Your task to perform on an android device: Search for pizza restaurants on Maps Image 0: 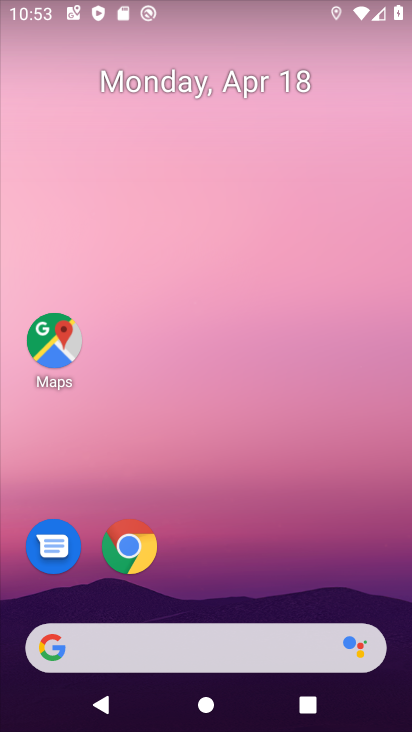
Step 0: click (53, 351)
Your task to perform on an android device: Search for pizza restaurants on Maps Image 1: 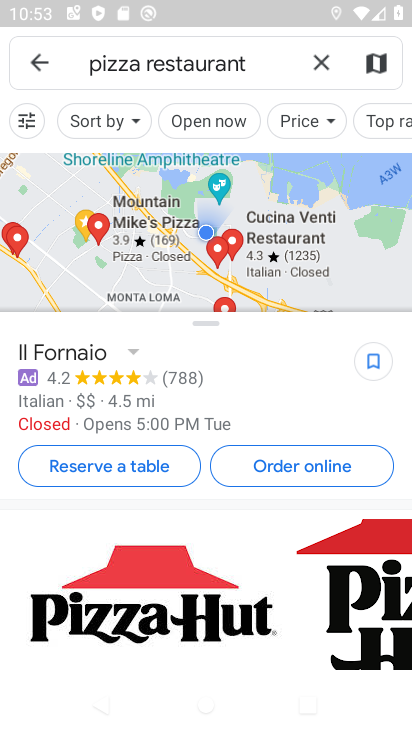
Step 1: task complete